Your task to perform on an android device: Show me popular games on the Play Store Image 0: 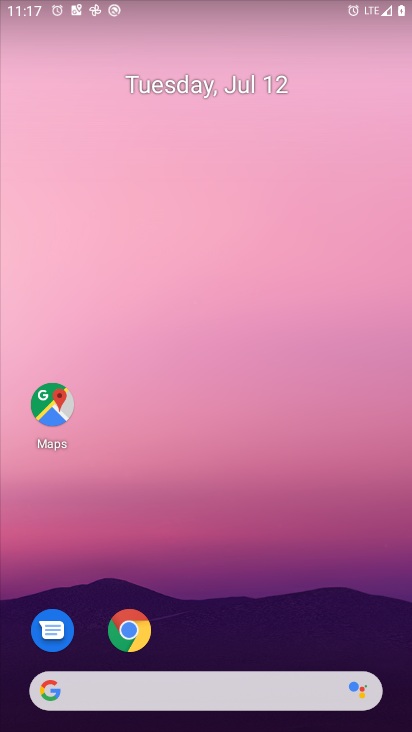
Step 0: press home button
Your task to perform on an android device: Show me popular games on the Play Store Image 1: 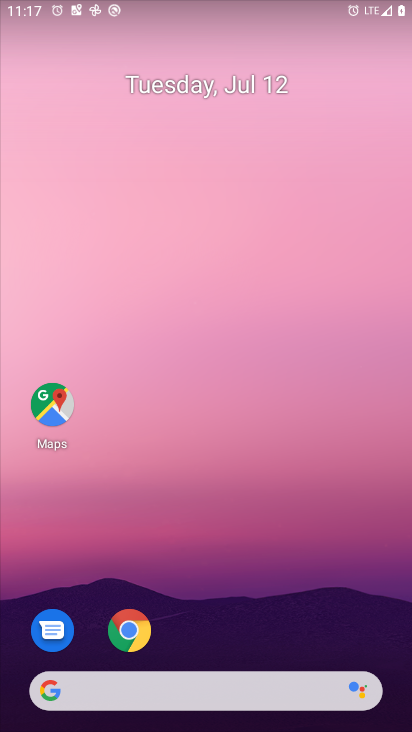
Step 1: press home button
Your task to perform on an android device: Show me popular games on the Play Store Image 2: 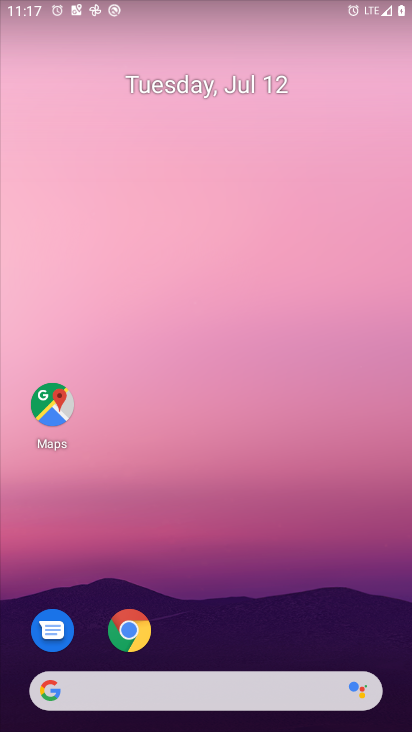
Step 2: drag from (259, 640) to (231, 0)
Your task to perform on an android device: Show me popular games on the Play Store Image 3: 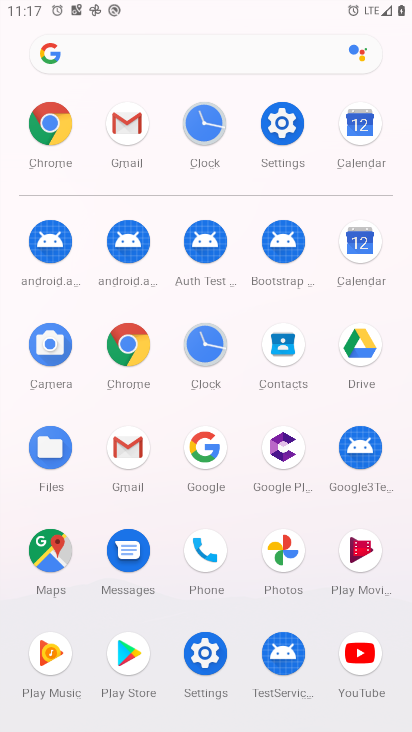
Step 3: click (127, 655)
Your task to perform on an android device: Show me popular games on the Play Store Image 4: 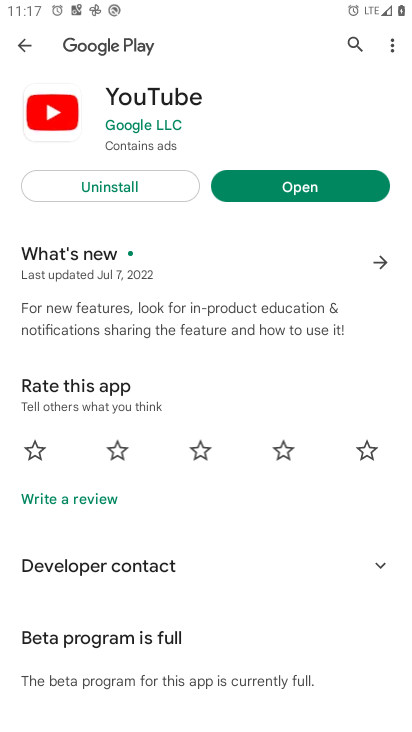
Step 4: press back button
Your task to perform on an android device: Show me popular games on the Play Store Image 5: 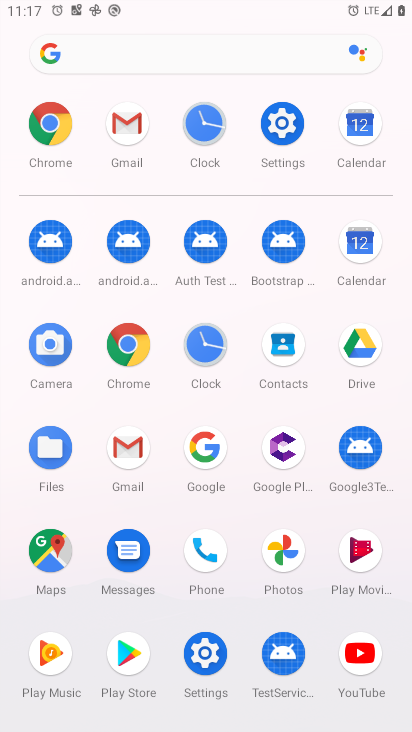
Step 5: click (140, 666)
Your task to perform on an android device: Show me popular games on the Play Store Image 6: 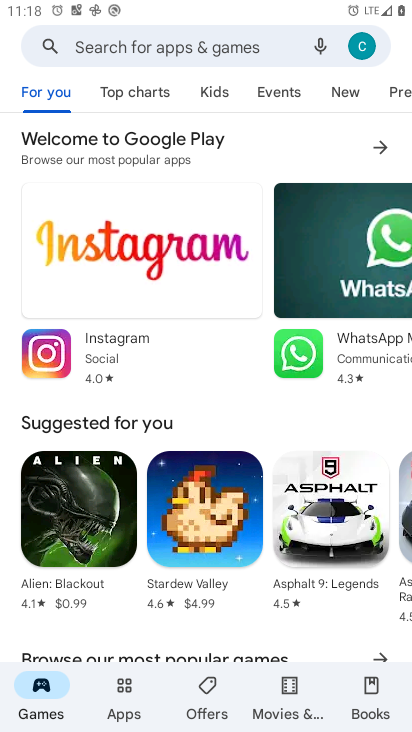
Step 6: click (52, 692)
Your task to perform on an android device: Show me popular games on the Play Store Image 7: 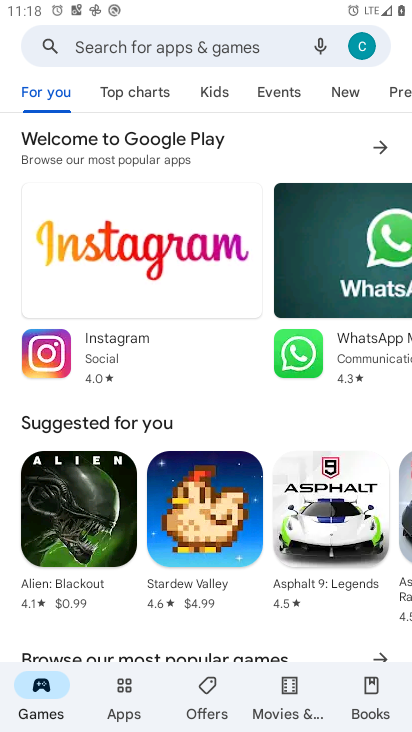
Step 7: click (3, 81)
Your task to perform on an android device: Show me popular games on the Play Store Image 8: 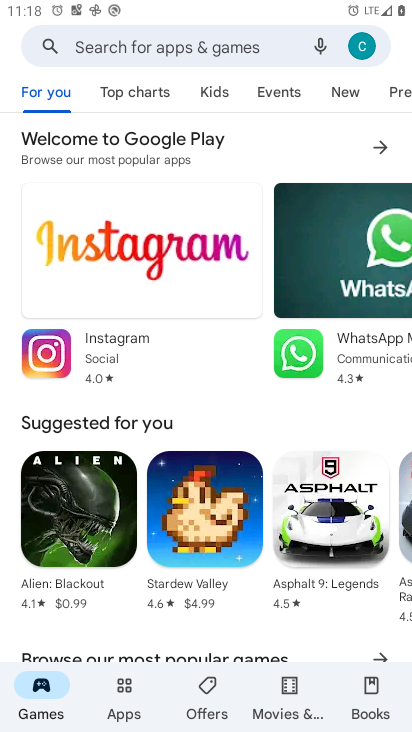
Step 8: drag from (390, 97) to (28, 125)
Your task to perform on an android device: Show me popular games on the Play Store Image 9: 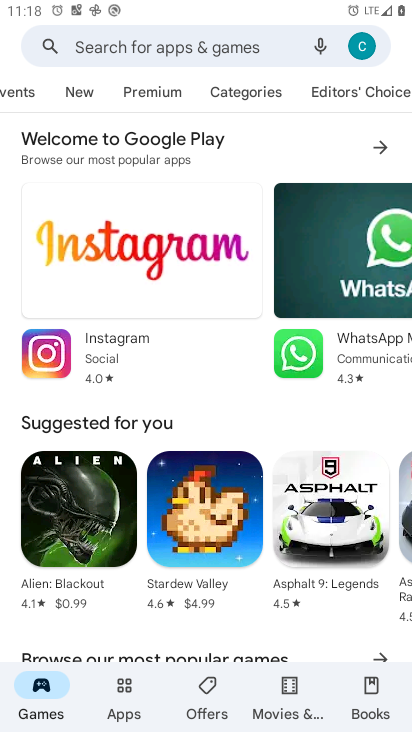
Step 9: click (240, 96)
Your task to perform on an android device: Show me popular games on the Play Store Image 10: 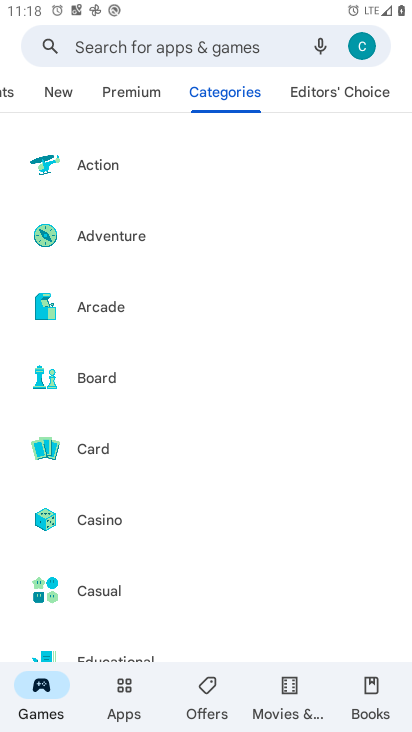
Step 10: task complete